Your task to perform on an android device: change notifications settings Image 0: 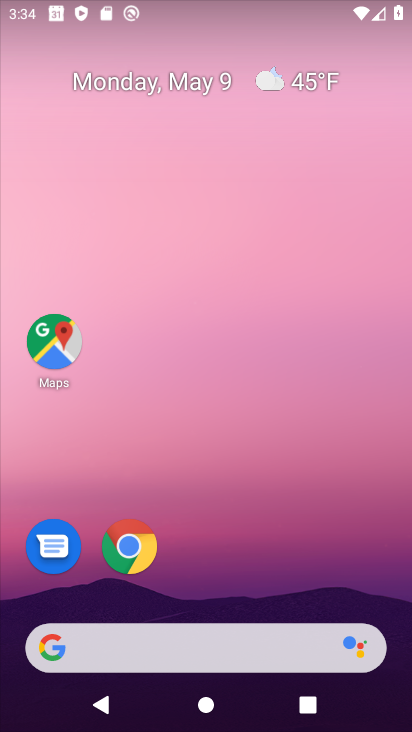
Step 0: drag from (207, 609) to (357, 55)
Your task to perform on an android device: change notifications settings Image 1: 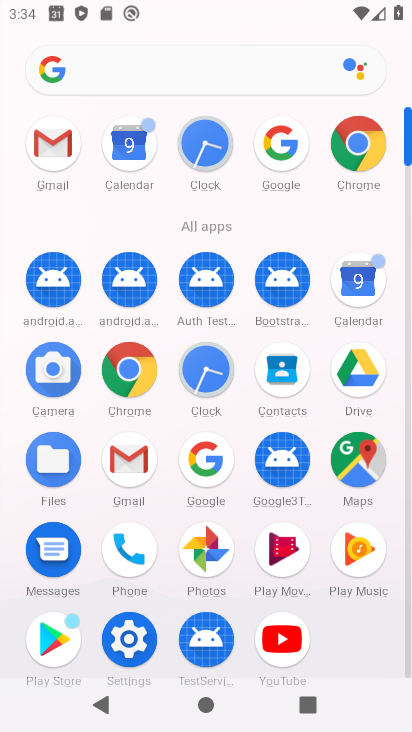
Step 1: click (119, 629)
Your task to perform on an android device: change notifications settings Image 2: 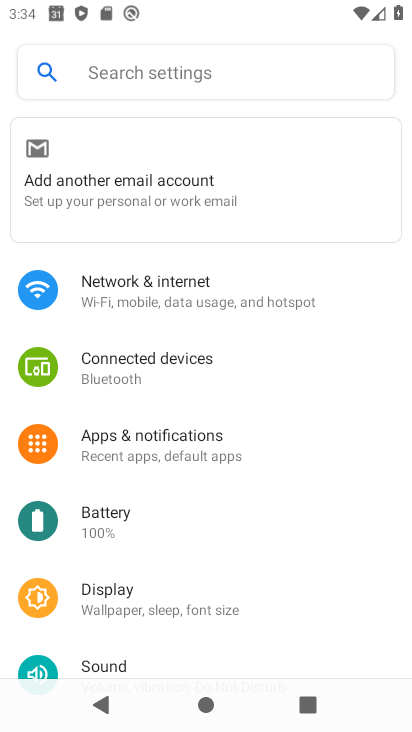
Step 2: drag from (199, 650) to (256, 498)
Your task to perform on an android device: change notifications settings Image 3: 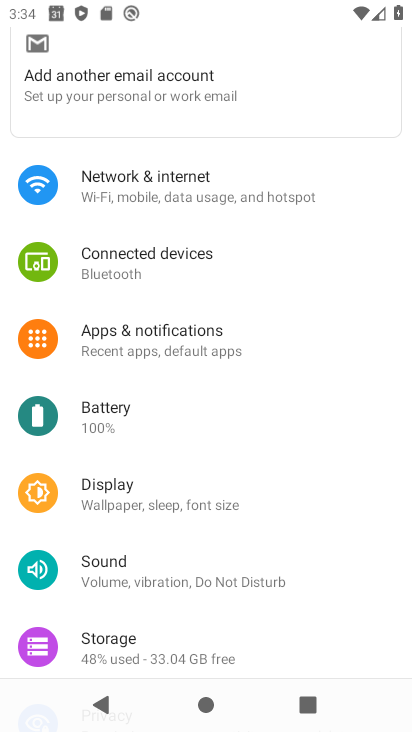
Step 3: click (243, 361)
Your task to perform on an android device: change notifications settings Image 4: 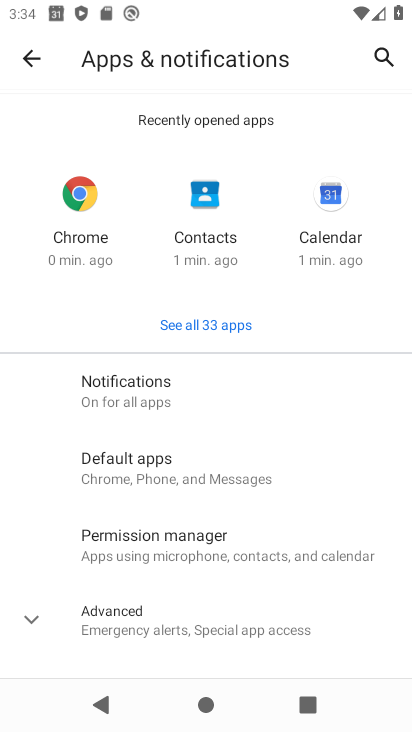
Step 4: click (266, 397)
Your task to perform on an android device: change notifications settings Image 5: 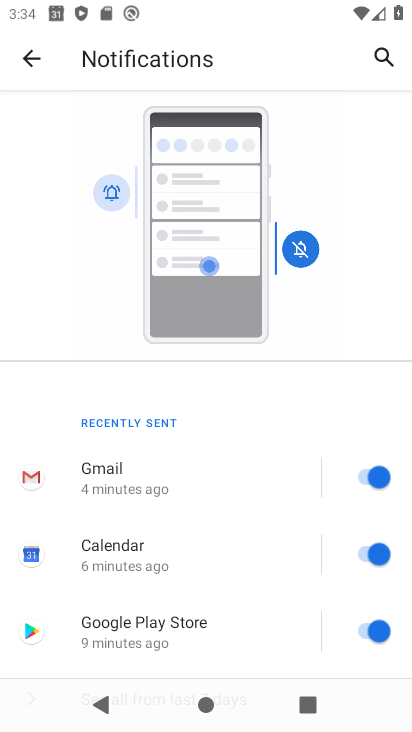
Step 5: drag from (179, 596) to (233, 430)
Your task to perform on an android device: change notifications settings Image 6: 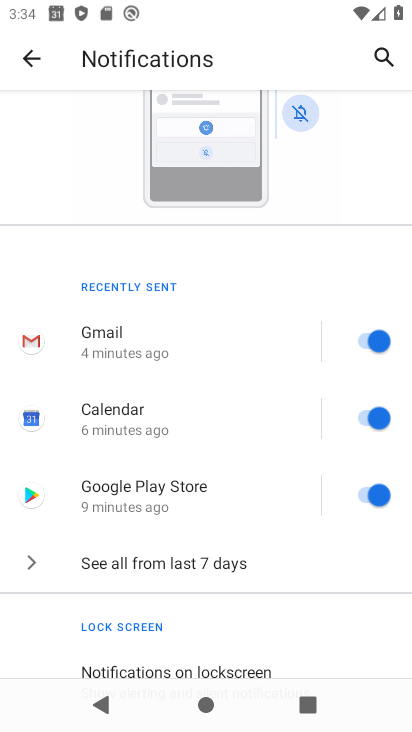
Step 6: click (370, 330)
Your task to perform on an android device: change notifications settings Image 7: 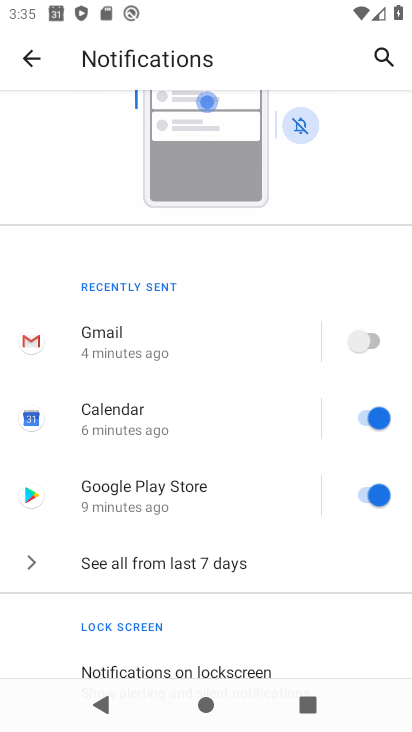
Step 7: click (375, 492)
Your task to perform on an android device: change notifications settings Image 8: 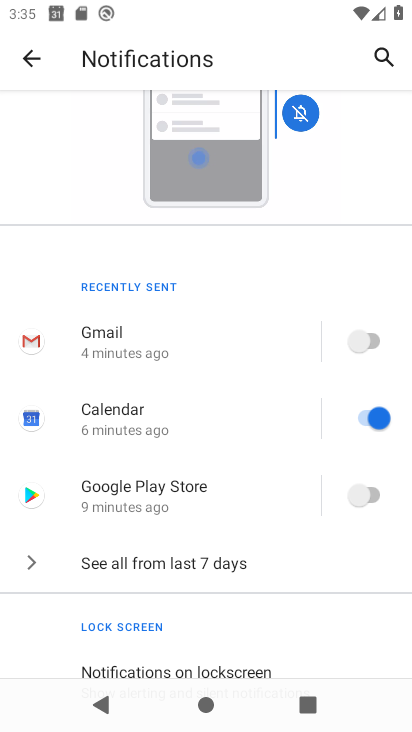
Step 8: drag from (331, 616) to (314, 367)
Your task to perform on an android device: change notifications settings Image 9: 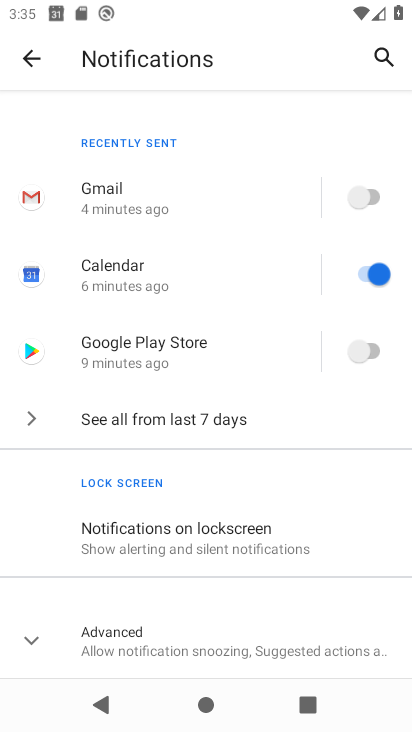
Step 9: drag from (245, 498) to (301, 274)
Your task to perform on an android device: change notifications settings Image 10: 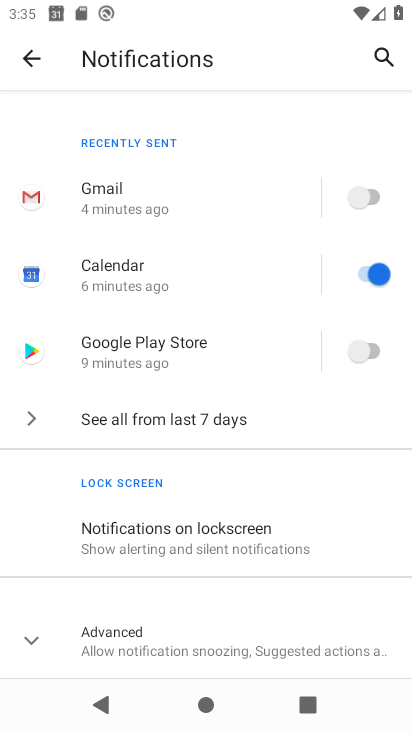
Step 10: click (159, 650)
Your task to perform on an android device: change notifications settings Image 11: 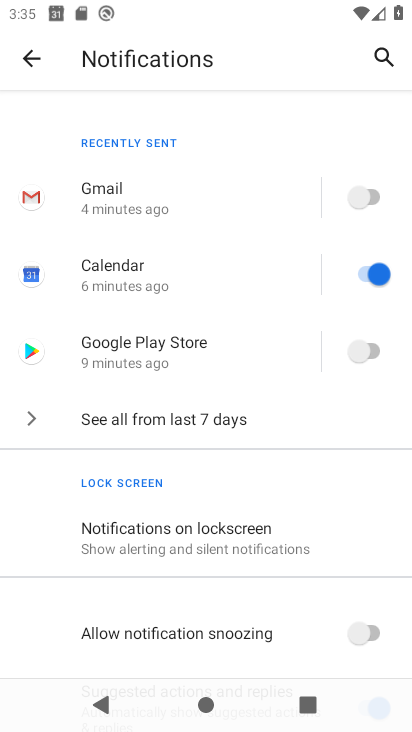
Step 11: drag from (159, 650) to (217, 446)
Your task to perform on an android device: change notifications settings Image 12: 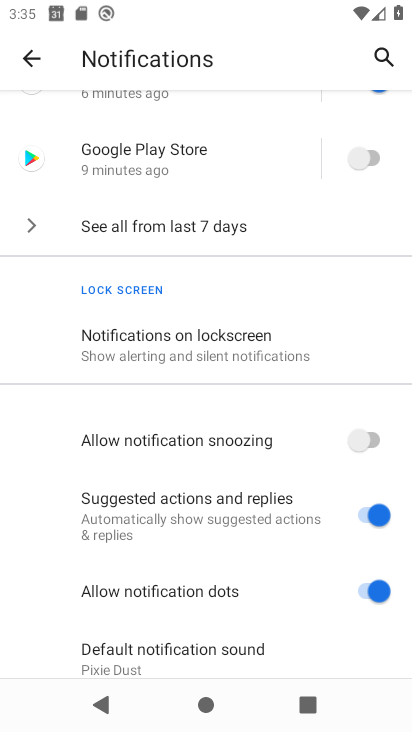
Step 12: click (367, 584)
Your task to perform on an android device: change notifications settings Image 13: 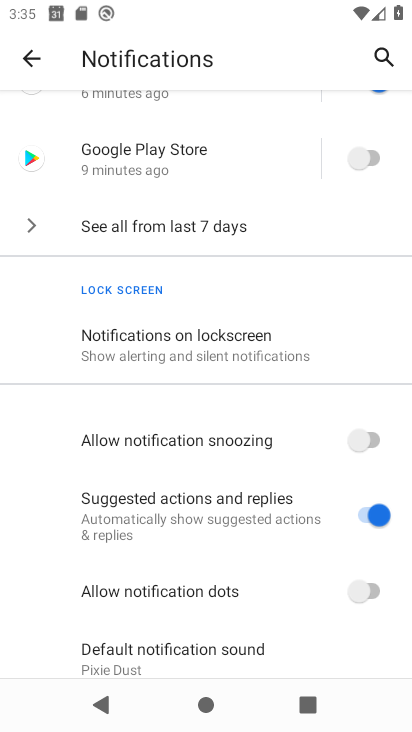
Step 13: click (365, 508)
Your task to perform on an android device: change notifications settings Image 14: 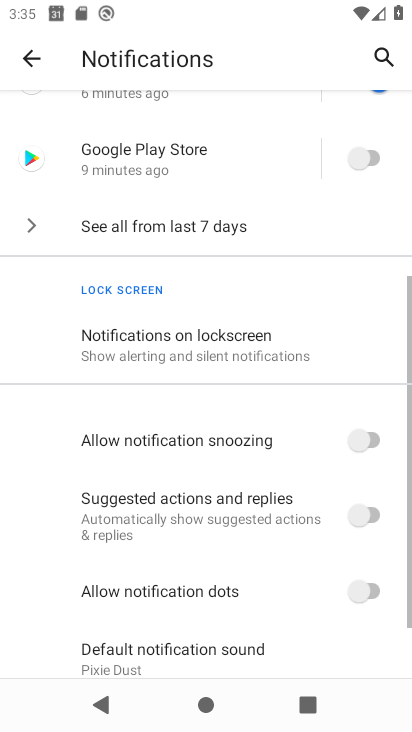
Step 14: drag from (299, 568) to (346, 369)
Your task to perform on an android device: change notifications settings Image 15: 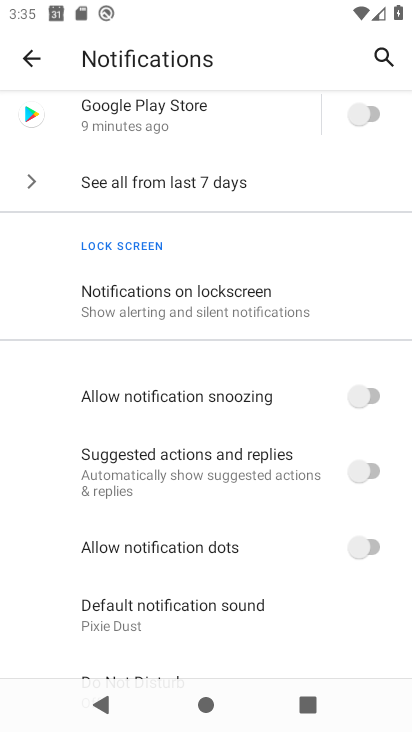
Step 15: drag from (233, 598) to (258, 388)
Your task to perform on an android device: change notifications settings Image 16: 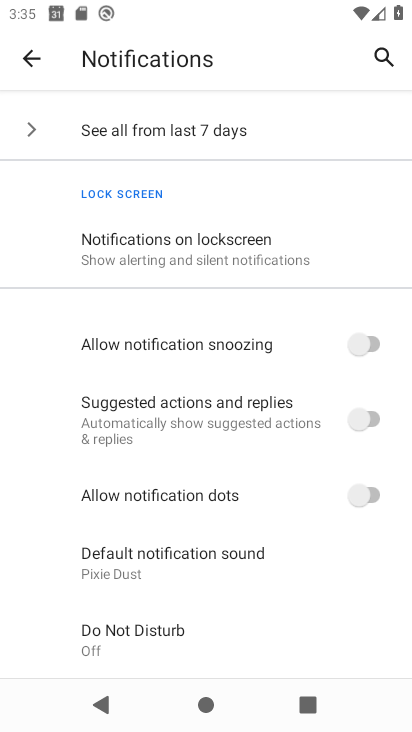
Step 16: click (211, 573)
Your task to perform on an android device: change notifications settings Image 17: 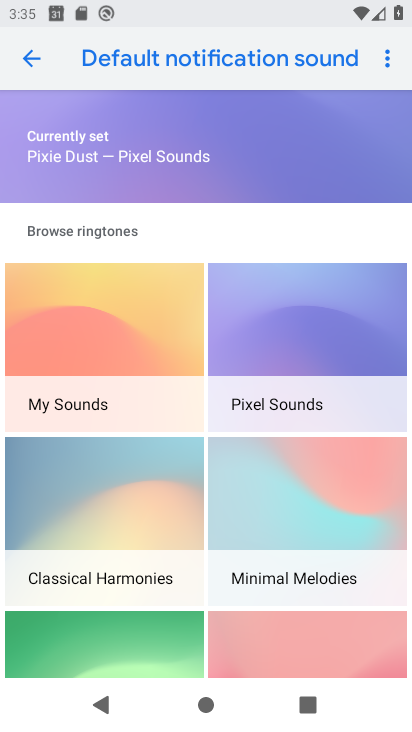
Step 17: click (147, 667)
Your task to perform on an android device: change notifications settings Image 18: 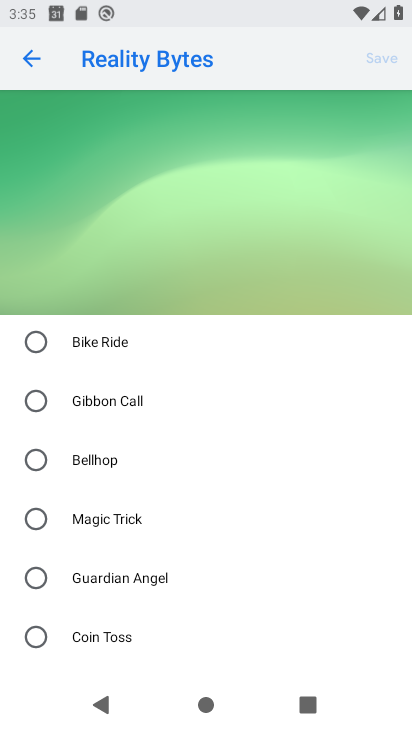
Step 18: click (146, 644)
Your task to perform on an android device: change notifications settings Image 19: 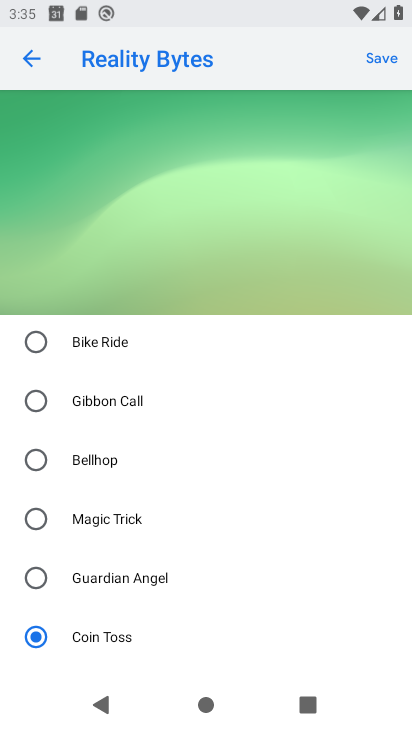
Step 19: click (378, 68)
Your task to perform on an android device: change notifications settings Image 20: 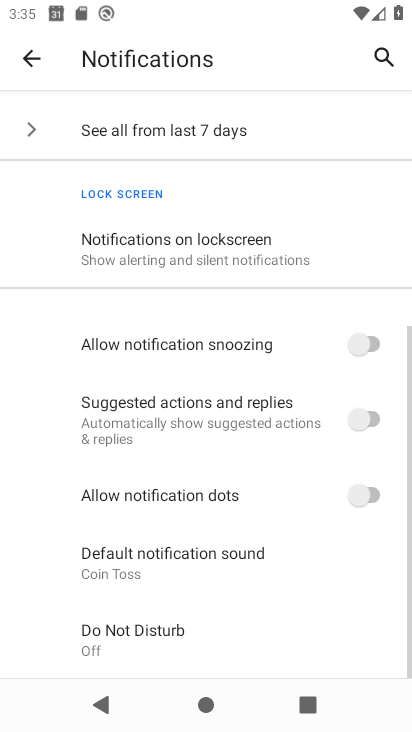
Step 20: task complete